Your task to perform on an android device: Go to settings Image 0: 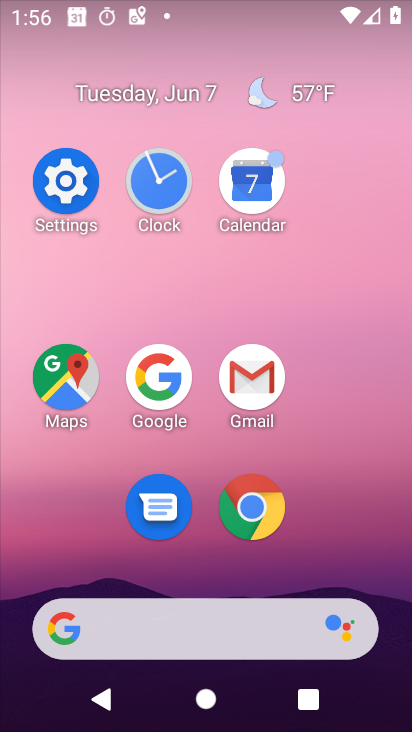
Step 0: click (249, 492)
Your task to perform on an android device: Go to settings Image 1: 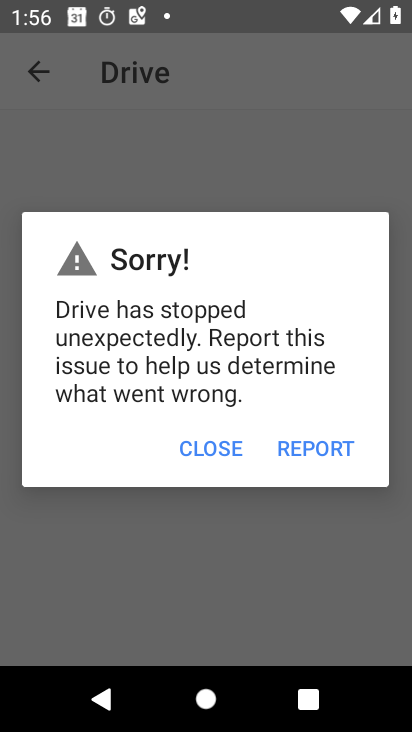
Step 1: click (205, 437)
Your task to perform on an android device: Go to settings Image 2: 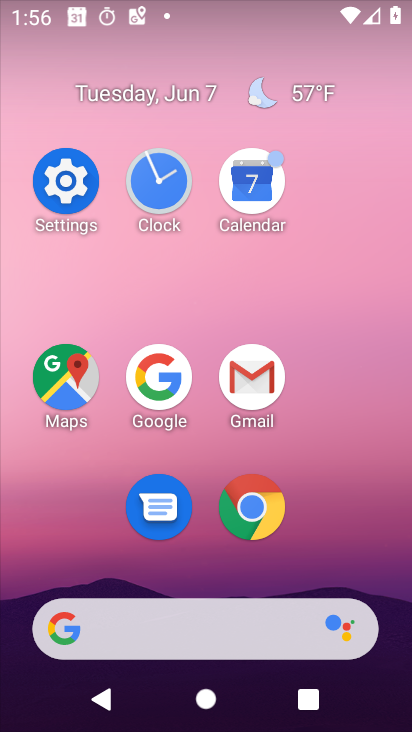
Step 2: click (253, 502)
Your task to perform on an android device: Go to settings Image 3: 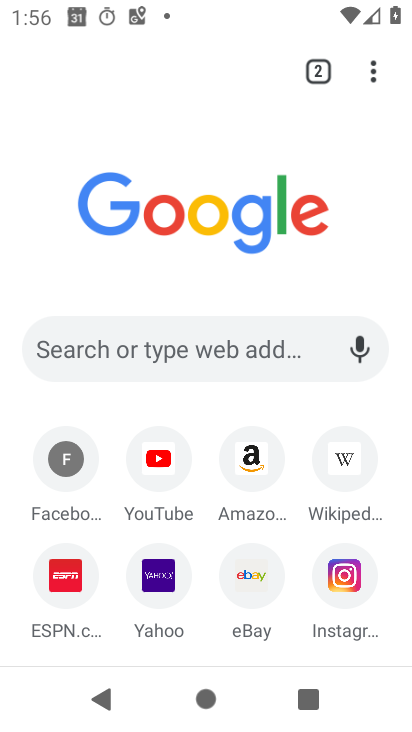
Step 3: click (373, 88)
Your task to perform on an android device: Go to settings Image 4: 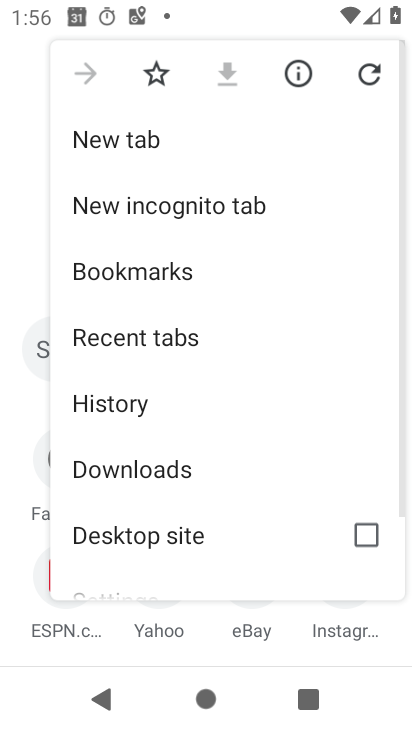
Step 4: drag from (107, 514) to (158, 104)
Your task to perform on an android device: Go to settings Image 5: 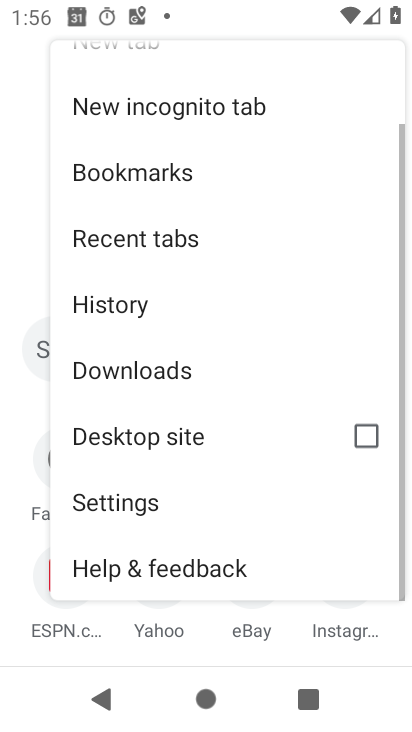
Step 5: click (146, 521)
Your task to perform on an android device: Go to settings Image 6: 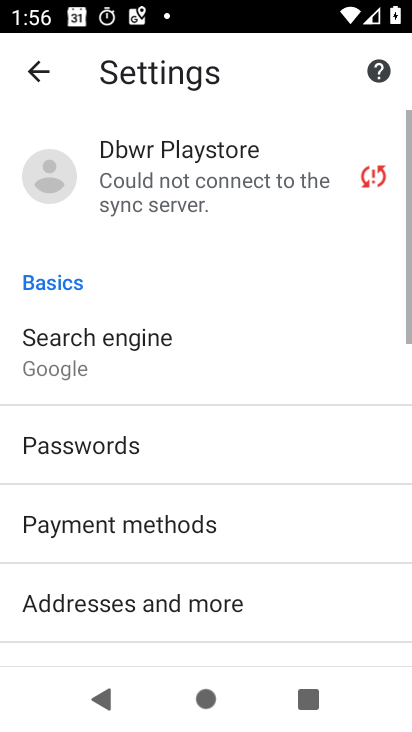
Step 6: task complete